Your task to perform on an android device: Add razer thresher to the cart on walmart Image 0: 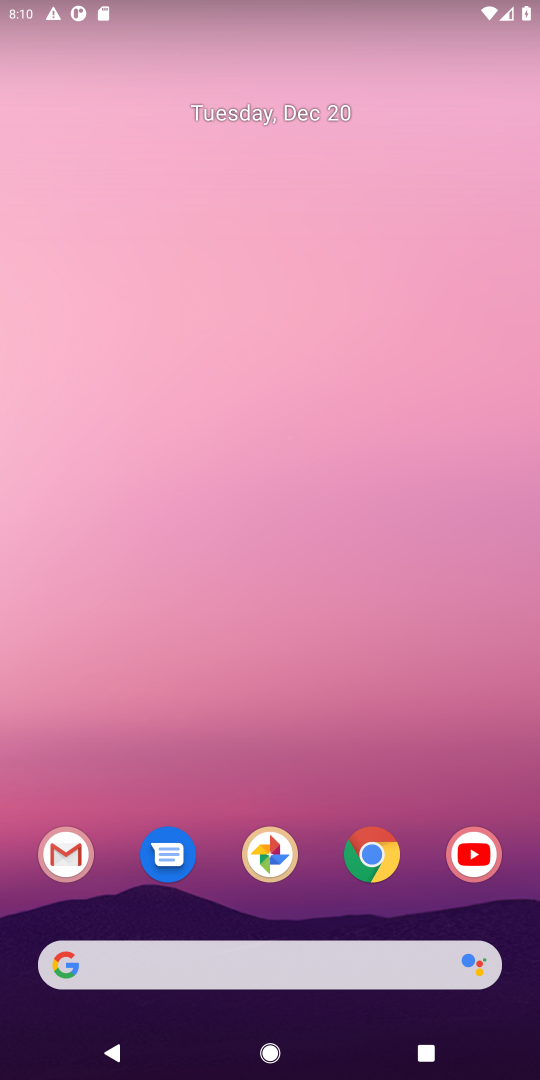
Step 0: click (370, 874)
Your task to perform on an android device: Add razer thresher to the cart on walmart Image 1: 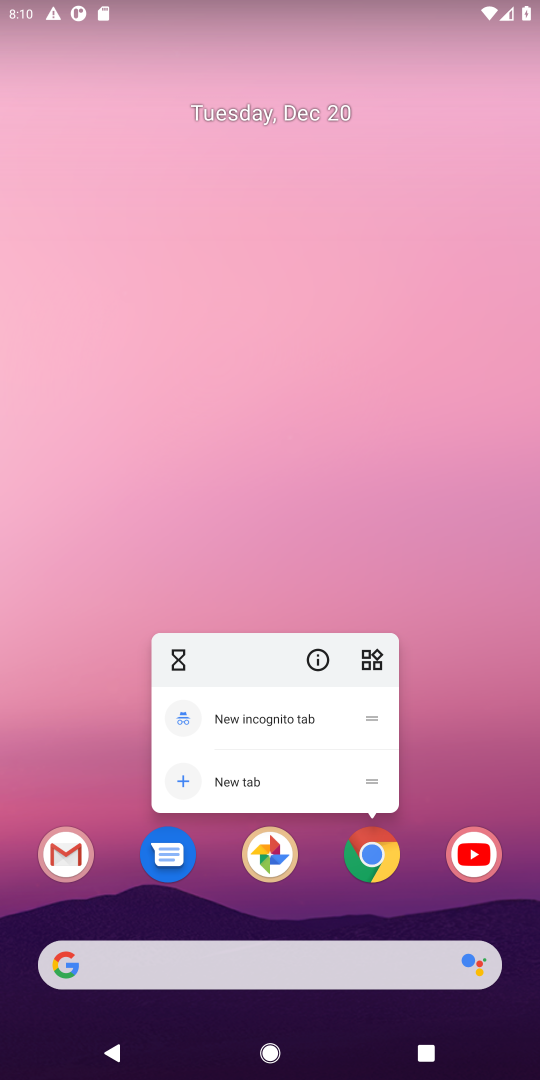
Step 1: click (370, 867)
Your task to perform on an android device: Add razer thresher to the cart on walmart Image 2: 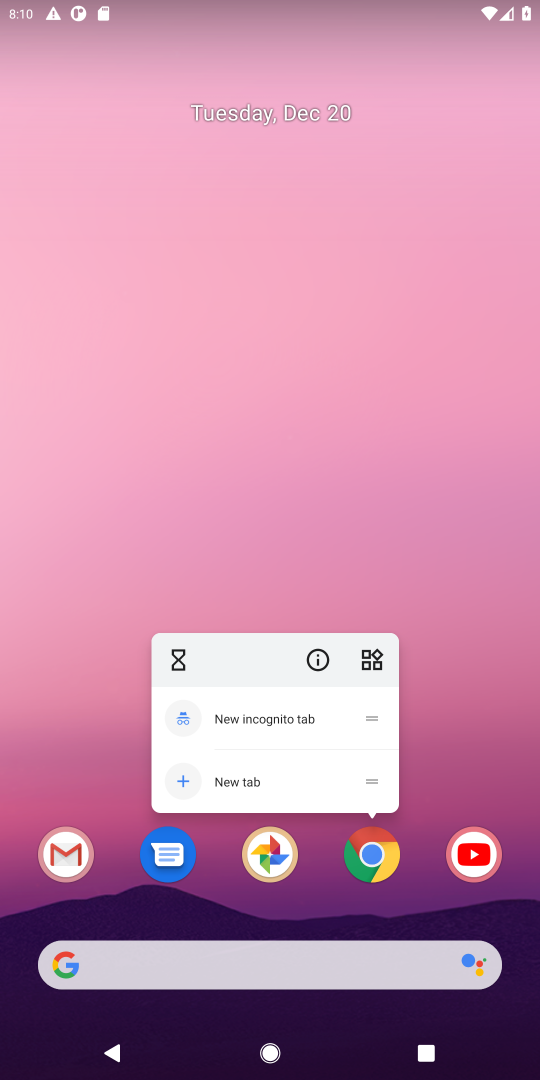
Step 2: click (370, 866)
Your task to perform on an android device: Add razer thresher to the cart on walmart Image 3: 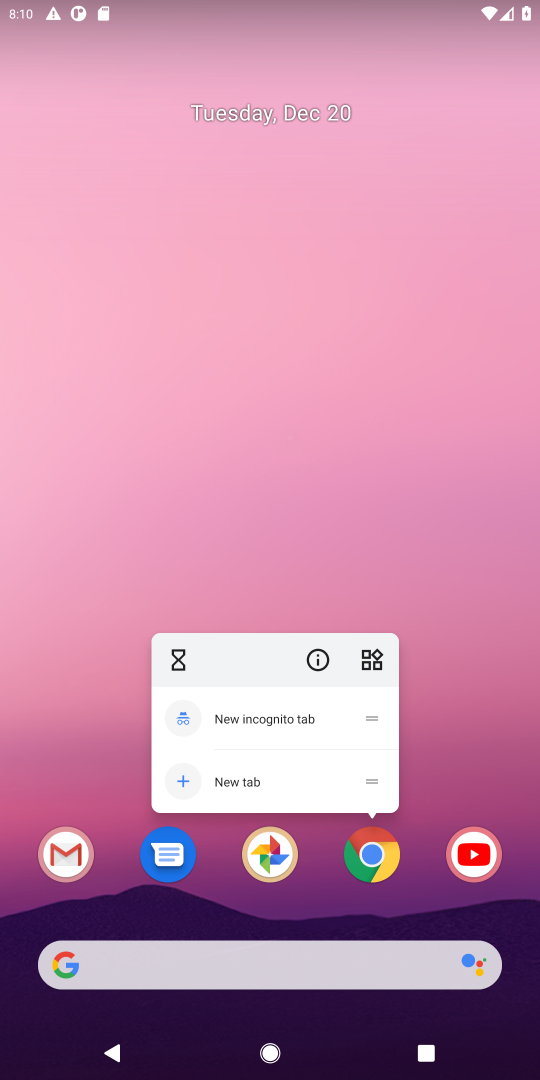
Step 3: click (375, 852)
Your task to perform on an android device: Add razer thresher to the cart on walmart Image 4: 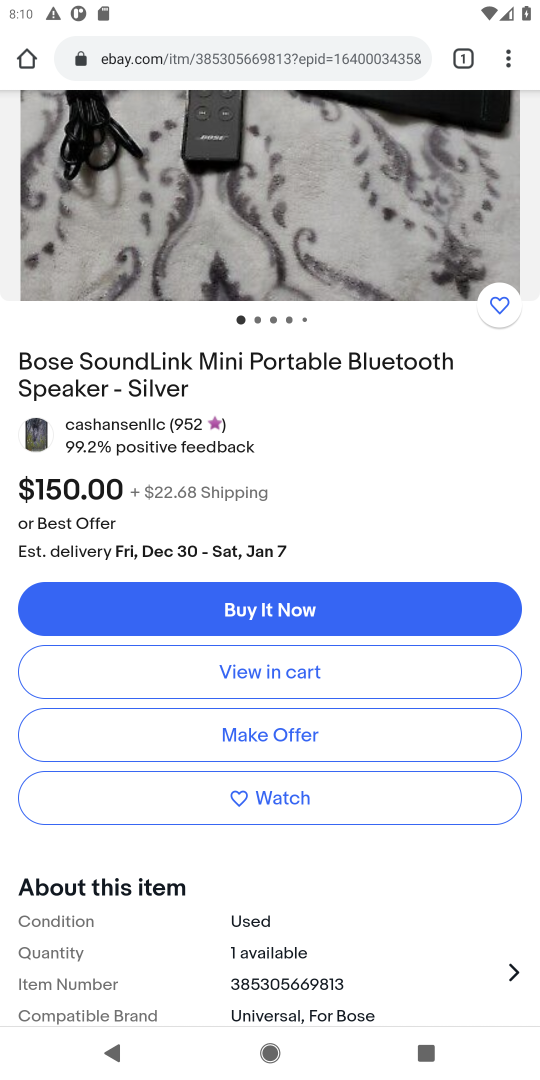
Step 4: click (170, 59)
Your task to perform on an android device: Add razer thresher to the cart on walmart Image 5: 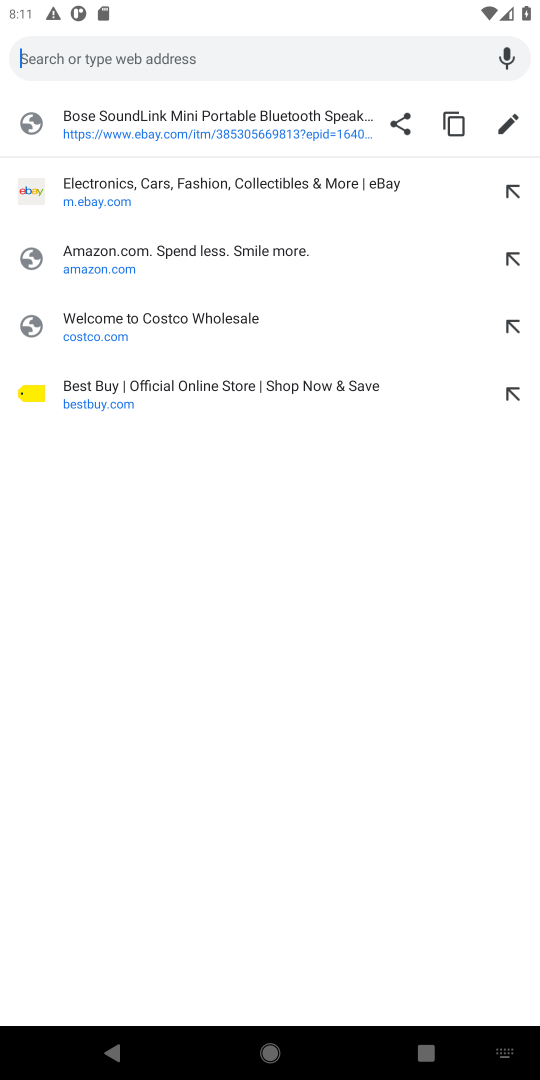
Step 5: type "walmart.com"
Your task to perform on an android device: Add razer thresher to the cart on walmart Image 6: 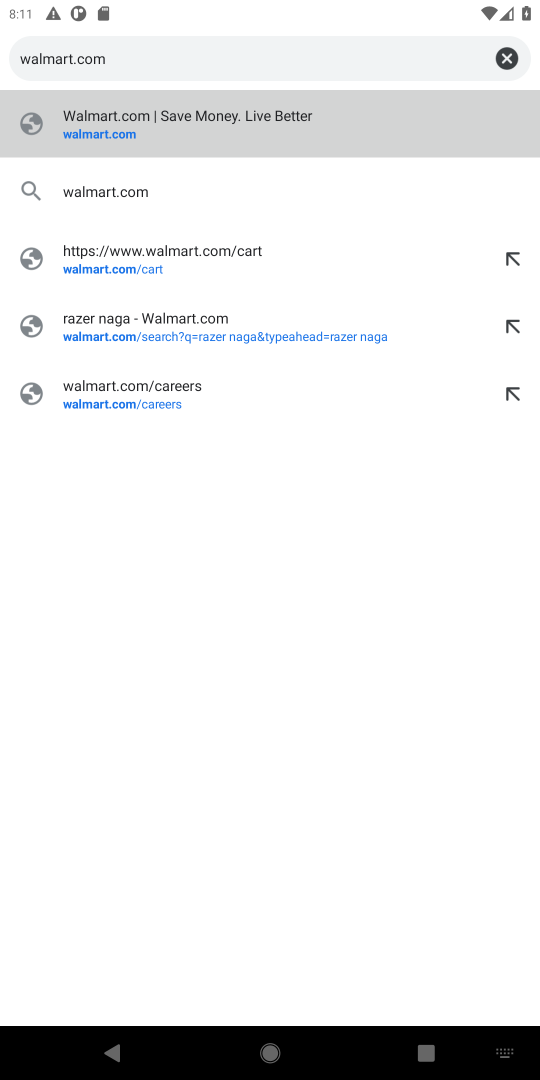
Step 6: click (68, 152)
Your task to perform on an android device: Add razer thresher to the cart on walmart Image 7: 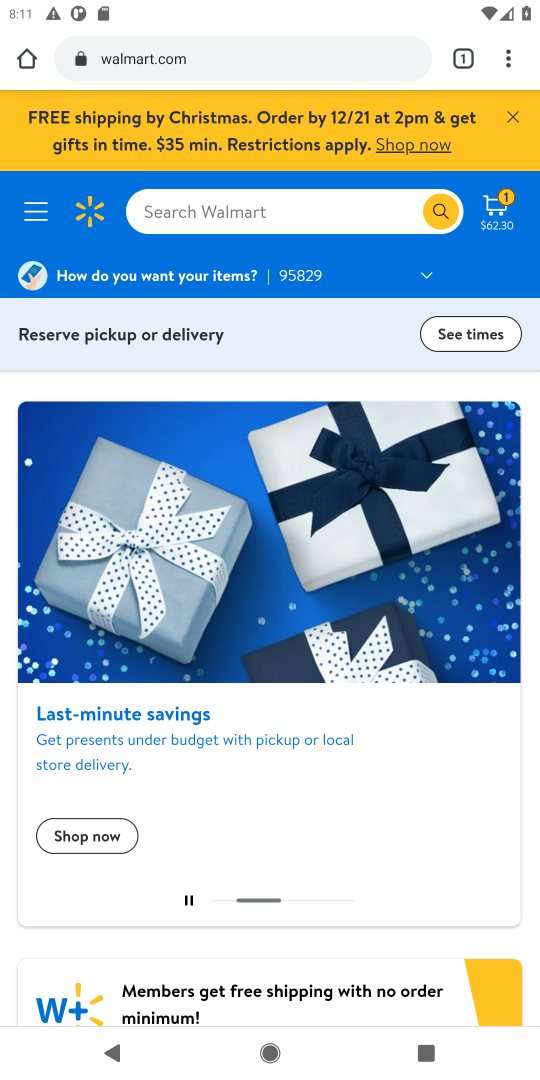
Step 7: click (209, 218)
Your task to perform on an android device: Add razer thresher to the cart on walmart Image 8: 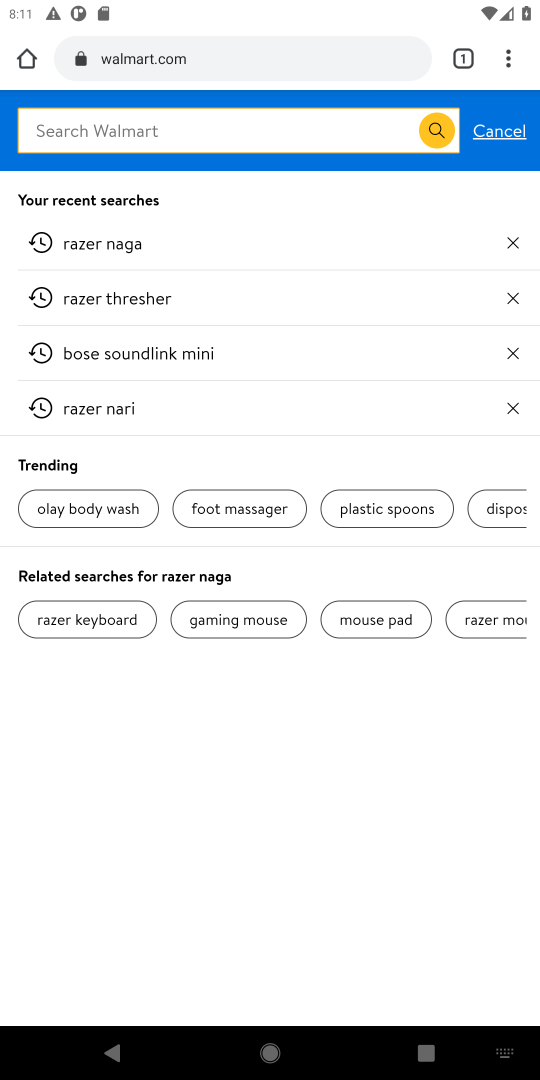
Step 8: type "razer thresher"
Your task to perform on an android device: Add razer thresher to the cart on walmart Image 9: 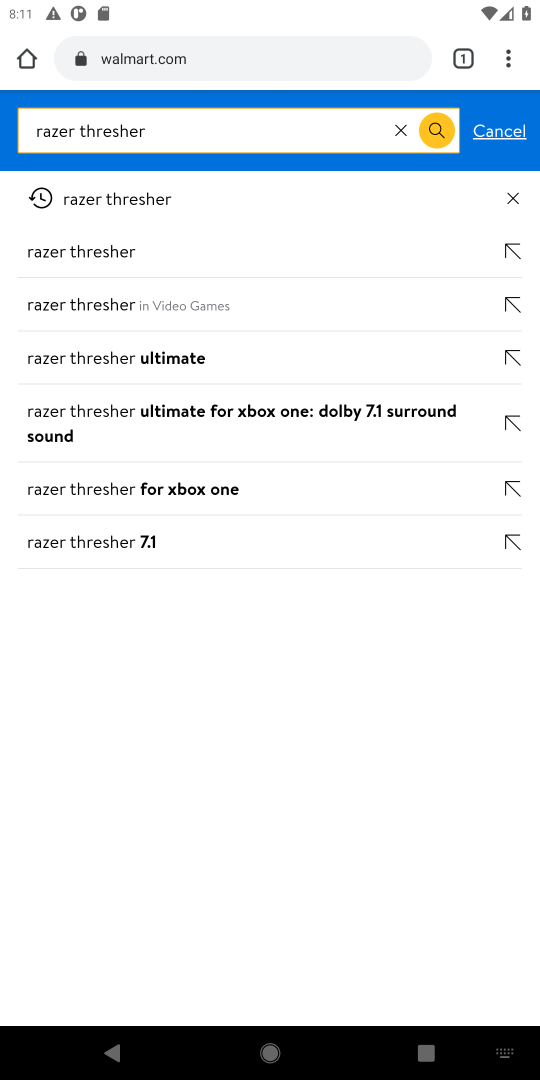
Step 9: click (101, 203)
Your task to perform on an android device: Add razer thresher to the cart on walmart Image 10: 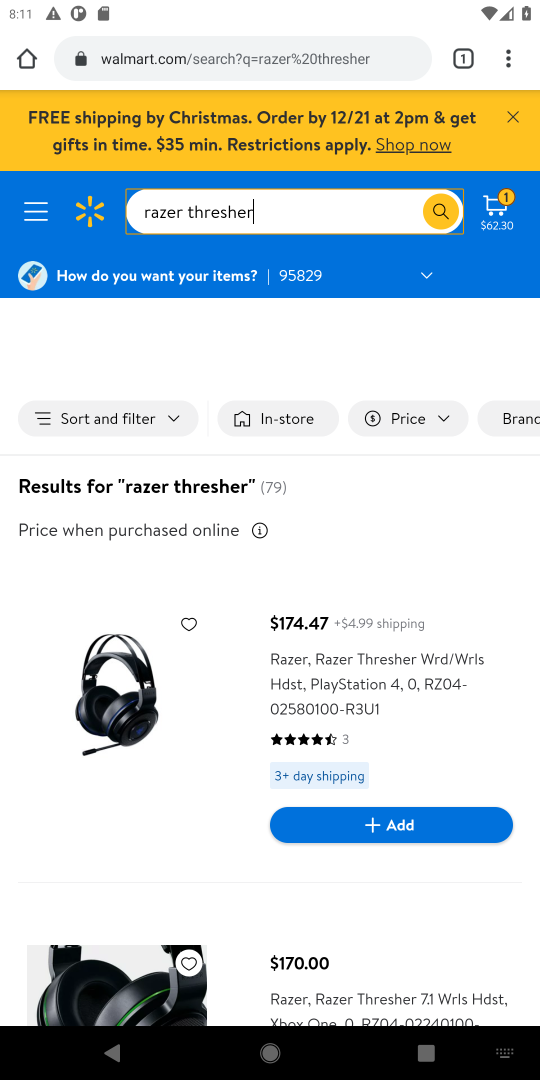
Step 10: click (403, 826)
Your task to perform on an android device: Add razer thresher to the cart on walmart Image 11: 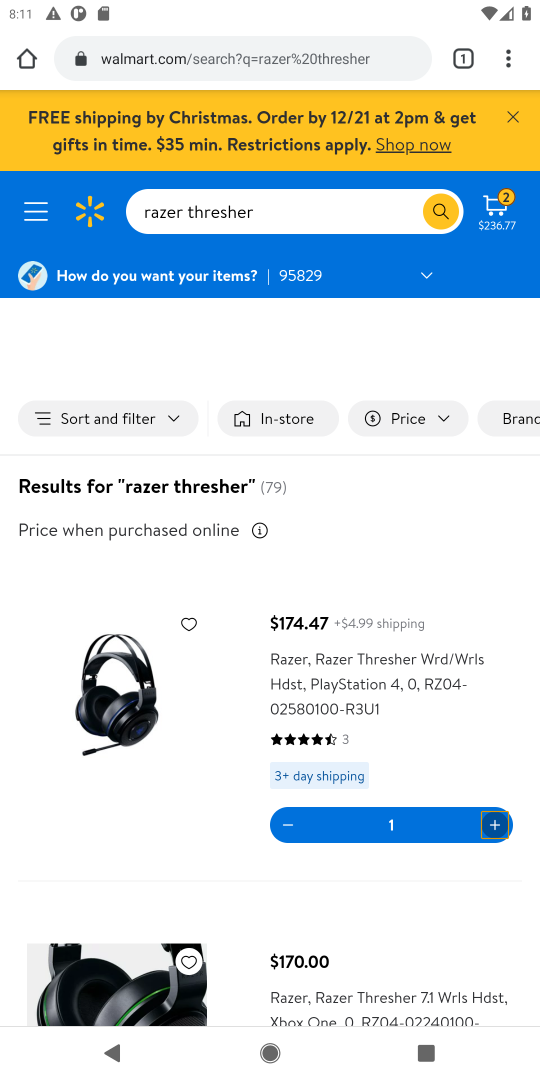
Step 11: task complete